Your task to perform on an android device: empty trash in google photos Image 0: 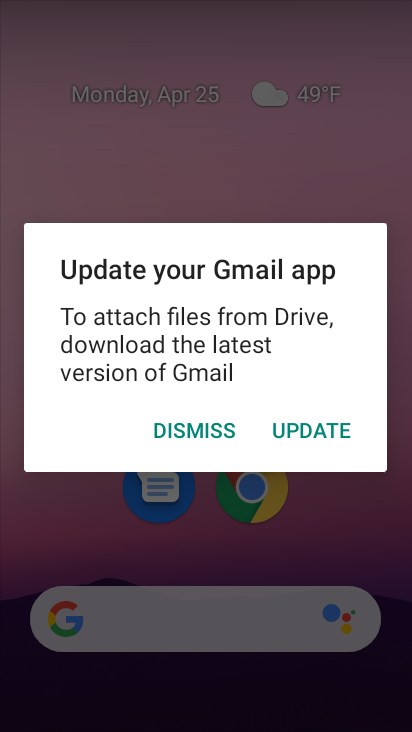
Step 0: press home button
Your task to perform on an android device: empty trash in google photos Image 1: 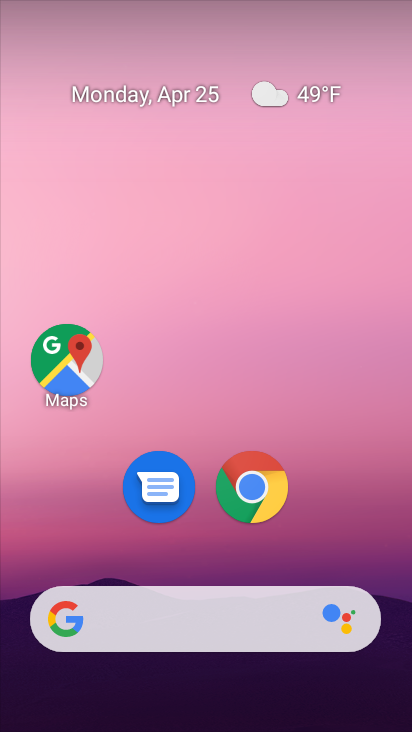
Step 1: drag from (369, 552) to (381, 52)
Your task to perform on an android device: empty trash in google photos Image 2: 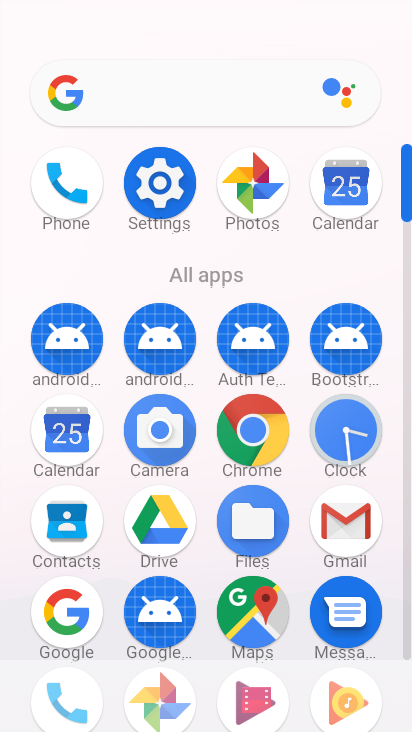
Step 2: click (254, 201)
Your task to perform on an android device: empty trash in google photos Image 3: 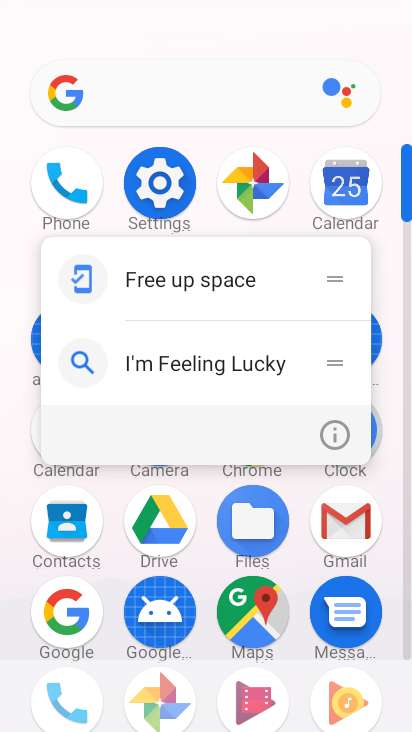
Step 3: click (254, 184)
Your task to perform on an android device: empty trash in google photos Image 4: 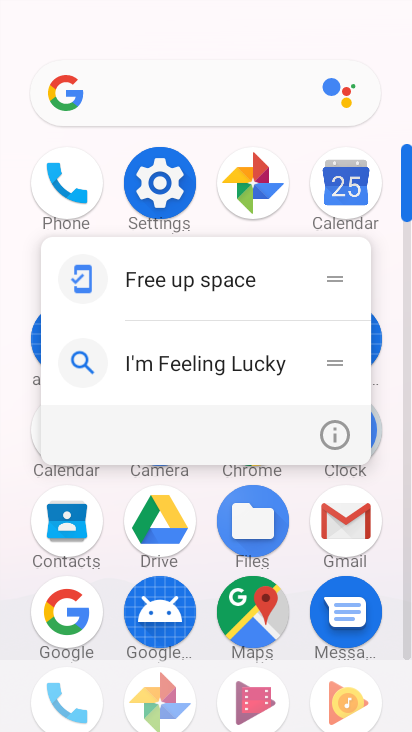
Step 4: click (248, 190)
Your task to perform on an android device: empty trash in google photos Image 5: 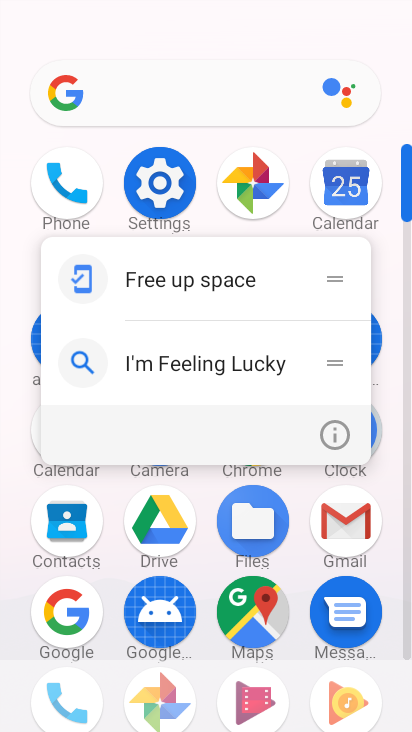
Step 5: click (255, 184)
Your task to perform on an android device: empty trash in google photos Image 6: 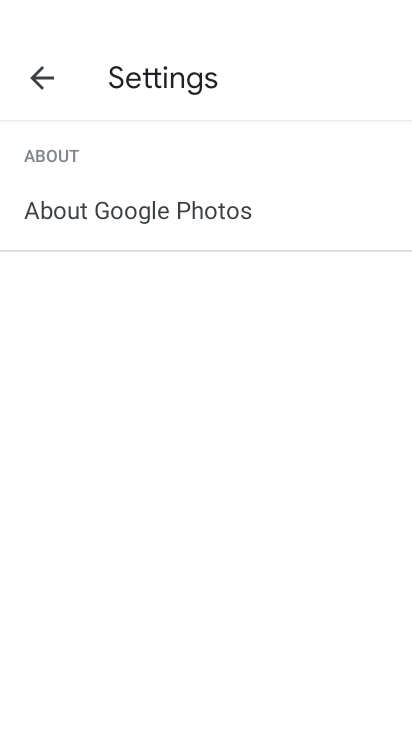
Step 6: click (43, 82)
Your task to perform on an android device: empty trash in google photos Image 7: 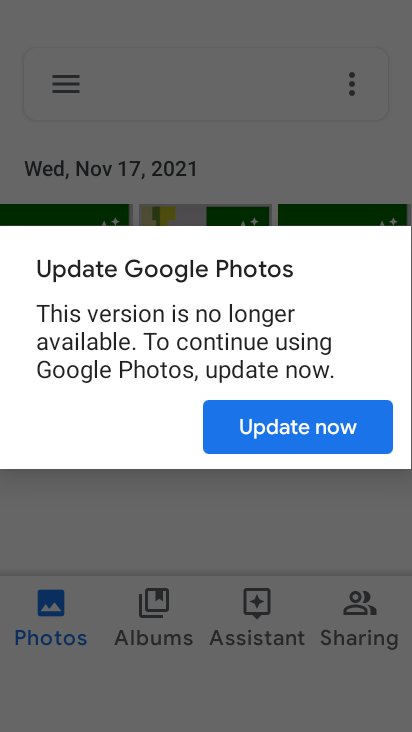
Step 7: click (255, 448)
Your task to perform on an android device: empty trash in google photos Image 8: 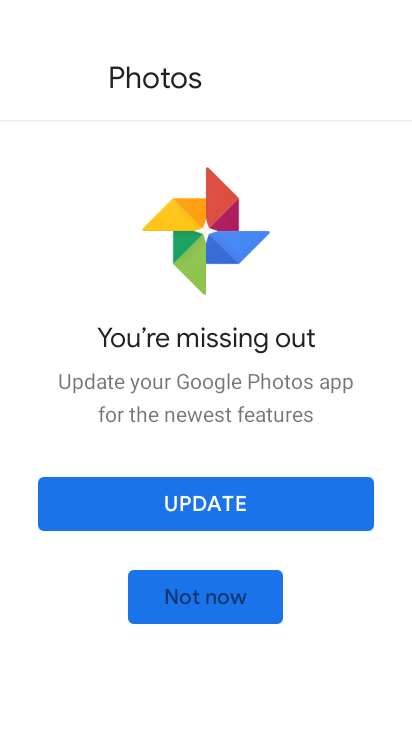
Step 8: click (188, 600)
Your task to perform on an android device: empty trash in google photos Image 9: 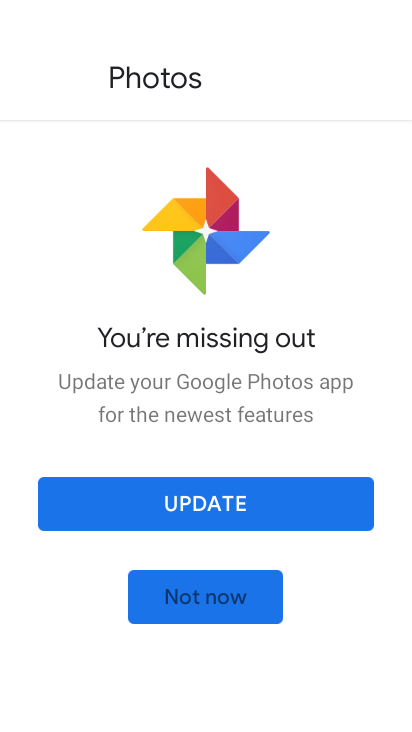
Step 9: click (212, 600)
Your task to perform on an android device: empty trash in google photos Image 10: 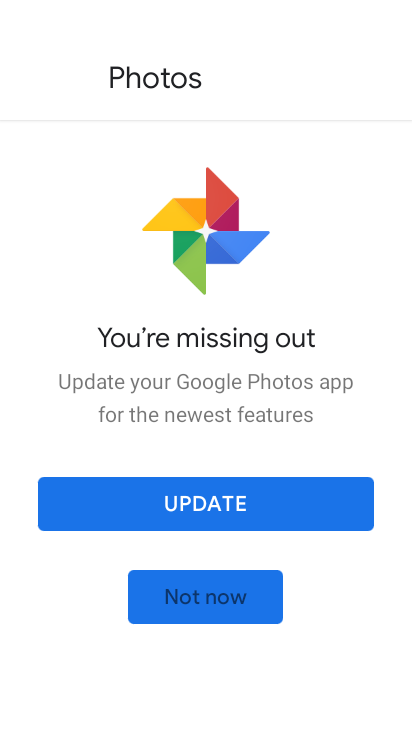
Step 10: click (202, 511)
Your task to perform on an android device: empty trash in google photos Image 11: 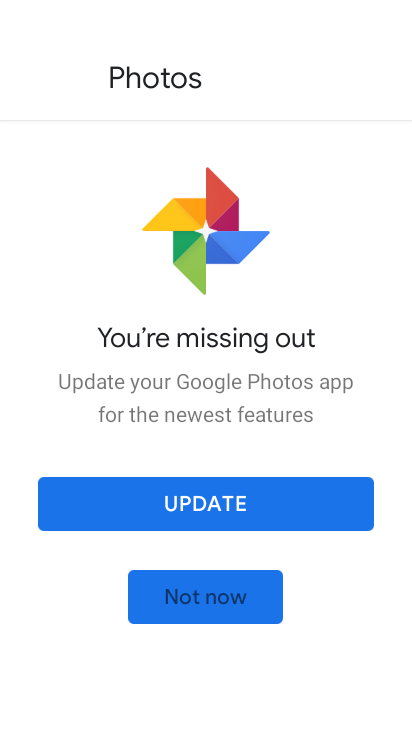
Step 11: click (200, 590)
Your task to perform on an android device: empty trash in google photos Image 12: 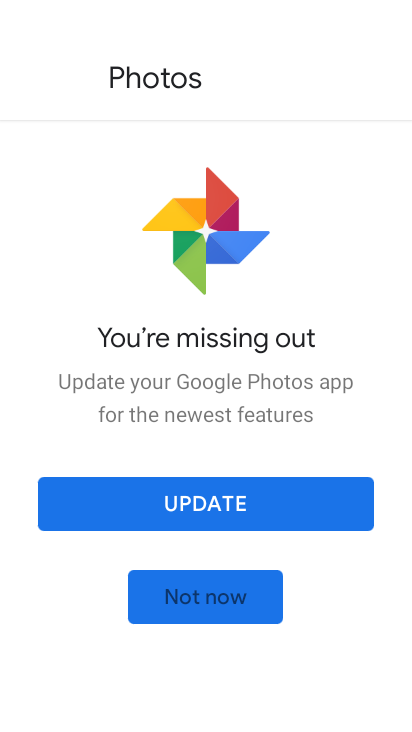
Step 12: click (225, 613)
Your task to perform on an android device: empty trash in google photos Image 13: 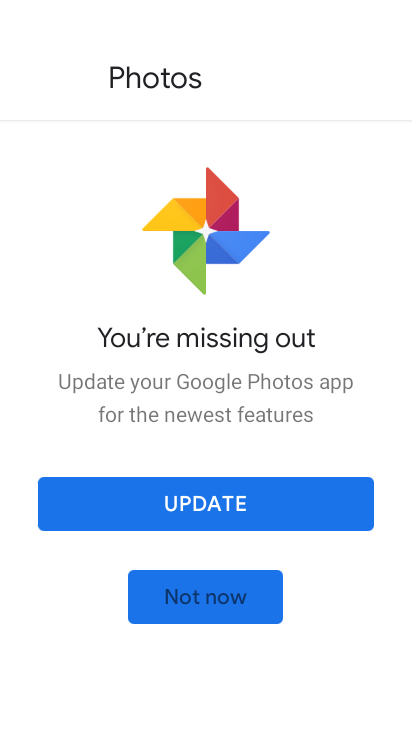
Step 13: click (221, 504)
Your task to perform on an android device: empty trash in google photos Image 14: 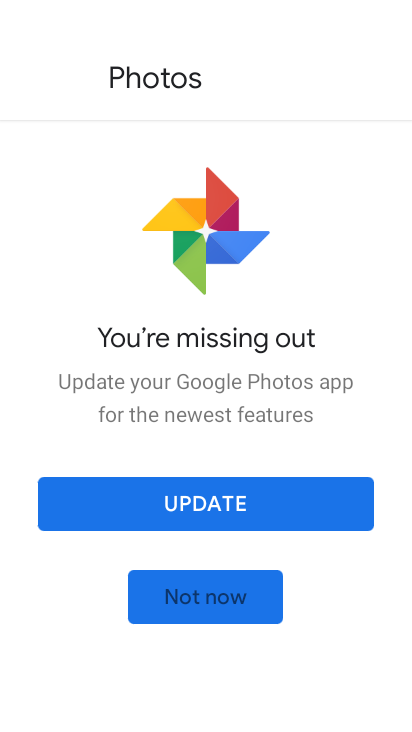
Step 14: click (184, 516)
Your task to perform on an android device: empty trash in google photos Image 15: 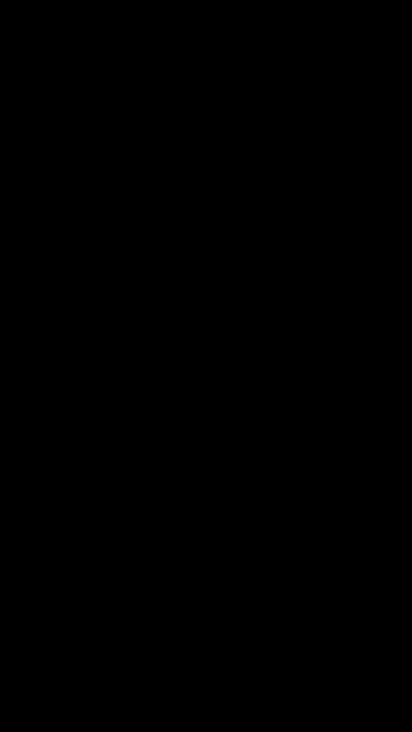
Step 15: task complete